Your task to perform on an android device: turn on javascript in the chrome app Image 0: 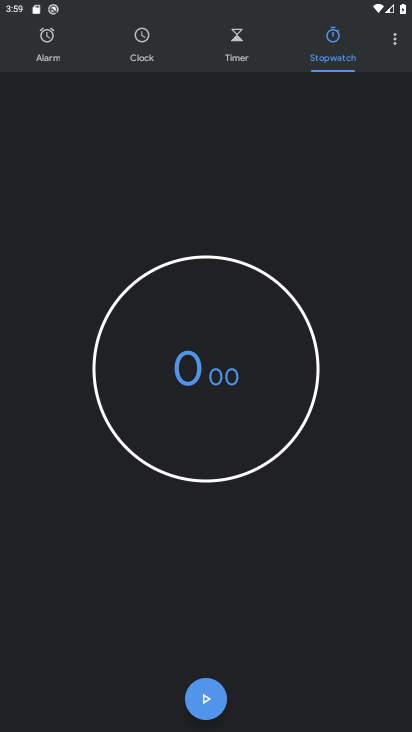
Step 0: press home button
Your task to perform on an android device: turn on javascript in the chrome app Image 1: 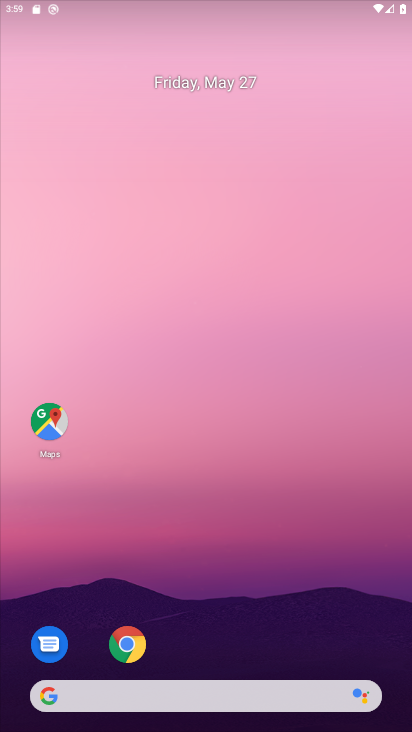
Step 1: drag from (260, 563) to (152, 22)
Your task to perform on an android device: turn on javascript in the chrome app Image 2: 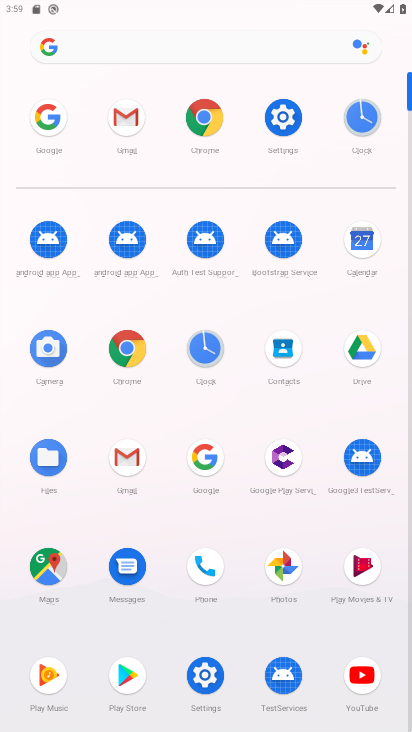
Step 2: click (128, 350)
Your task to perform on an android device: turn on javascript in the chrome app Image 3: 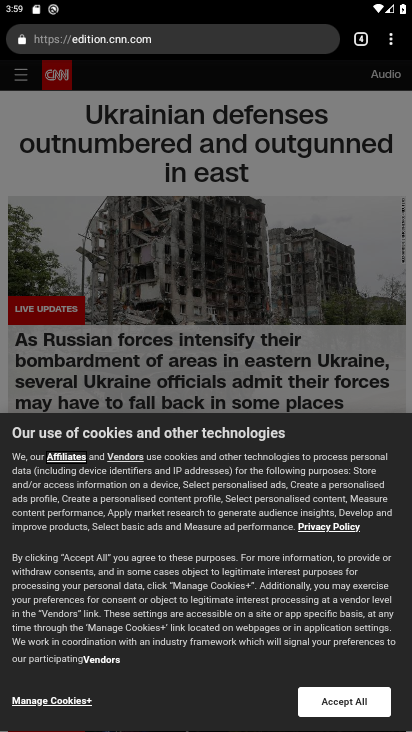
Step 3: click (264, 477)
Your task to perform on an android device: turn on javascript in the chrome app Image 4: 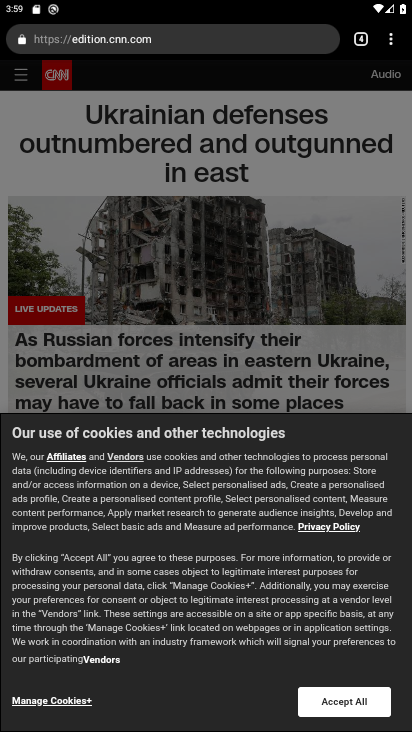
Step 4: click (396, 44)
Your task to perform on an android device: turn on javascript in the chrome app Image 5: 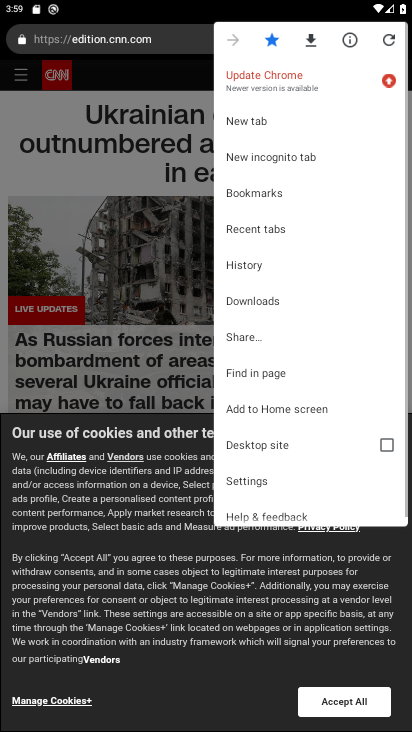
Step 5: click (258, 487)
Your task to perform on an android device: turn on javascript in the chrome app Image 6: 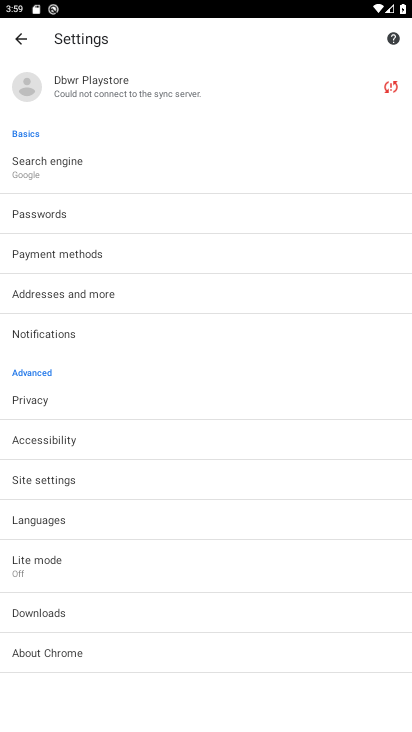
Step 6: click (66, 482)
Your task to perform on an android device: turn on javascript in the chrome app Image 7: 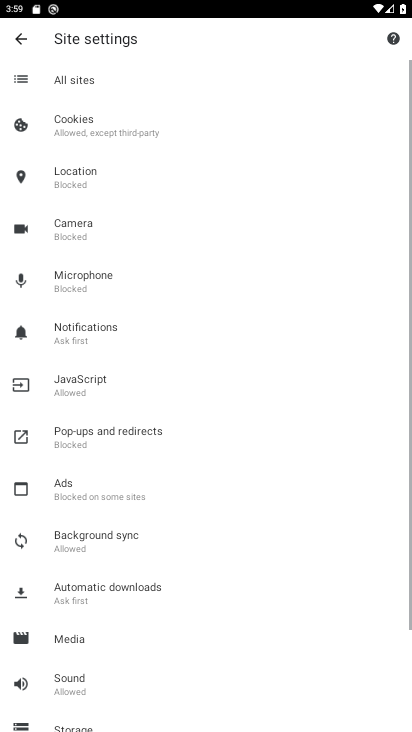
Step 7: click (74, 386)
Your task to perform on an android device: turn on javascript in the chrome app Image 8: 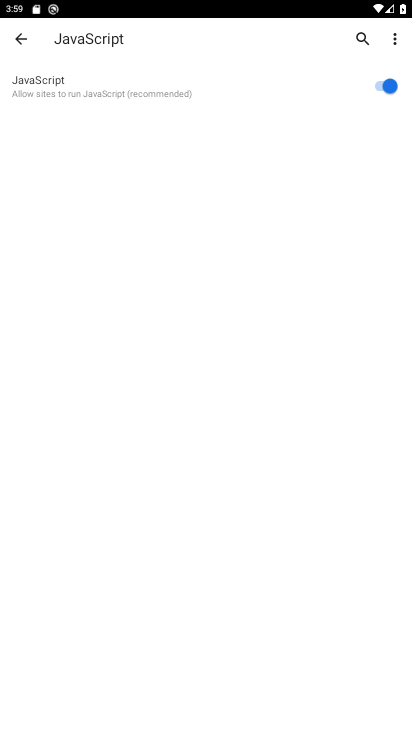
Step 8: task complete